Your task to perform on an android device: See recent photos Image 0: 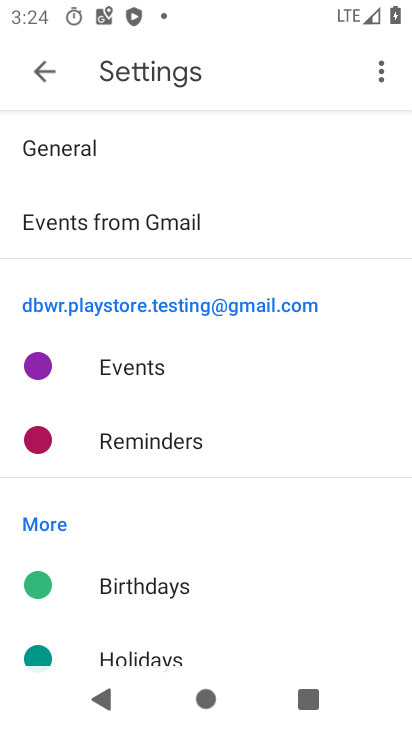
Step 0: press home button
Your task to perform on an android device: See recent photos Image 1: 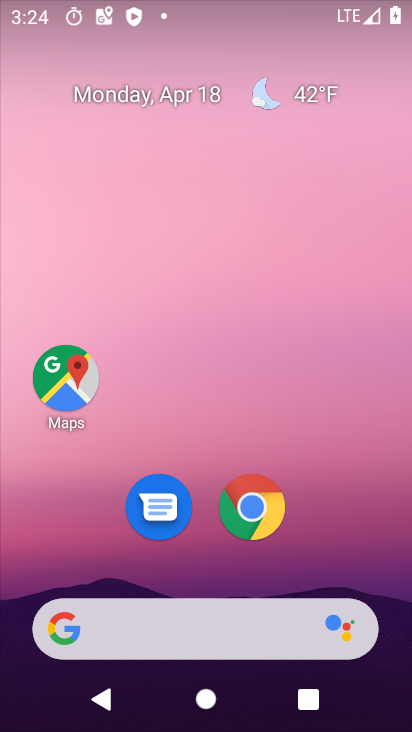
Step 1: drag from (372, 566) to (368, 125)
Your task to perform on an android device: See recent photos Image 2: 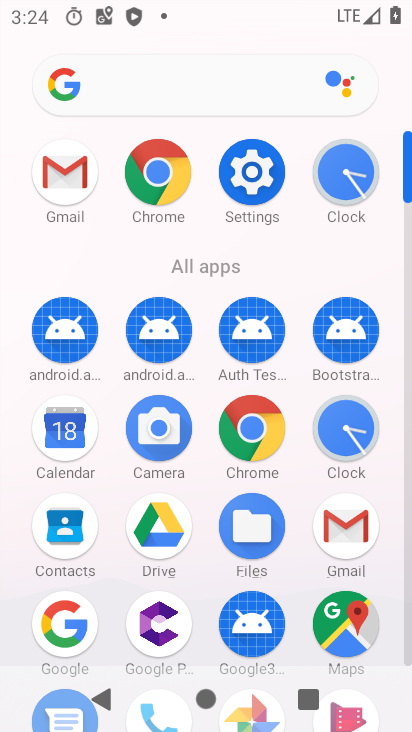
Step 2: drag from (206, 617) to (226, 288)
Your task to perform on an android device: See recent photos Image 3: 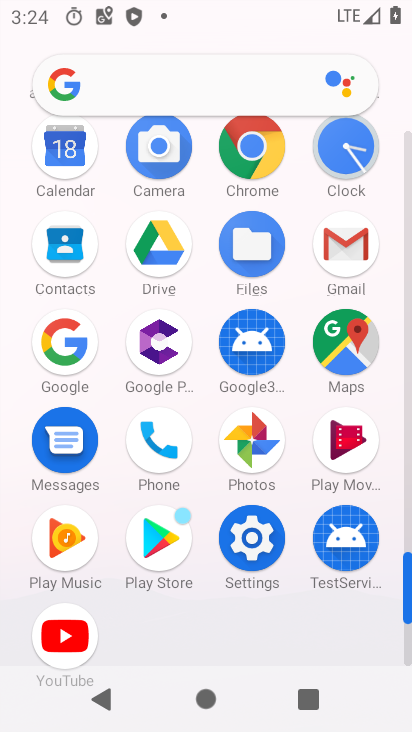
Step 3: click (250, 448)
Your task to perform on an android device: See recent photos Image 4: 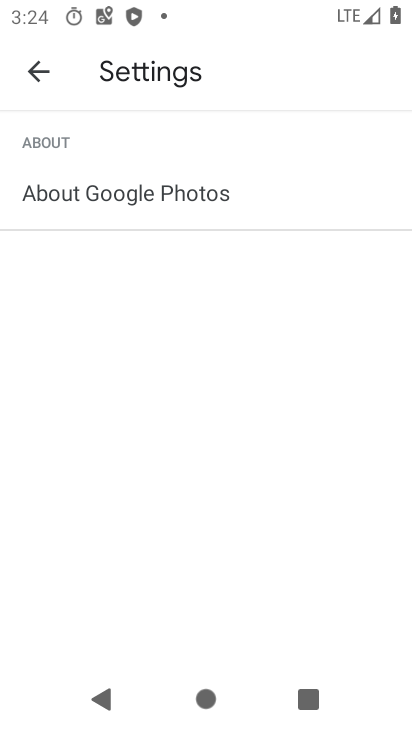
Step 4: click (42, 71)
Your task to perform on an android device: See recent photos Image 5: 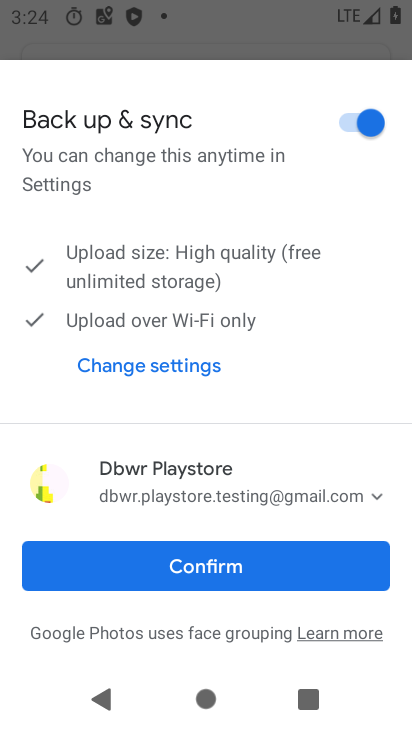
Step 5: click (201, 572)
Your task to perform on an android device: See recent photos Image 6: 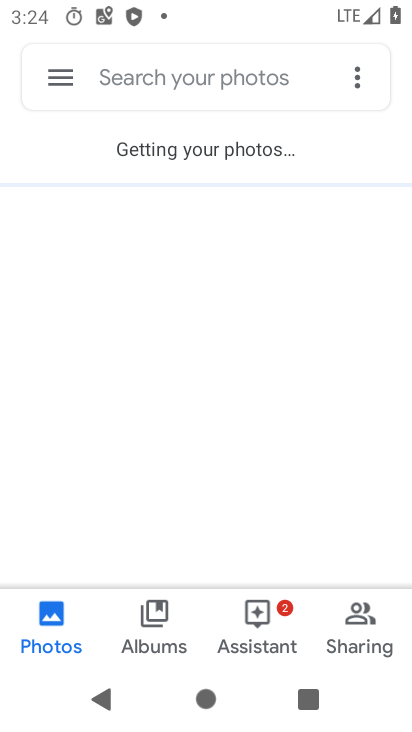
Step 6: click (64, 80)
Your task to perform on an android device: See recent photos Image 7: 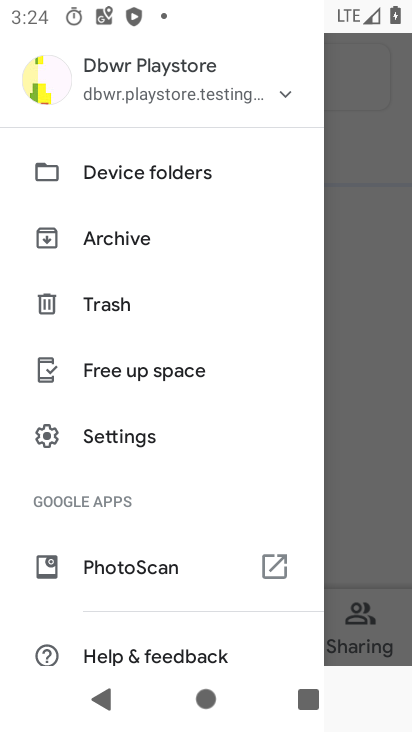
Step 7: click (344, 349)
Your task to perform on an android device: See recent photos Image 8: 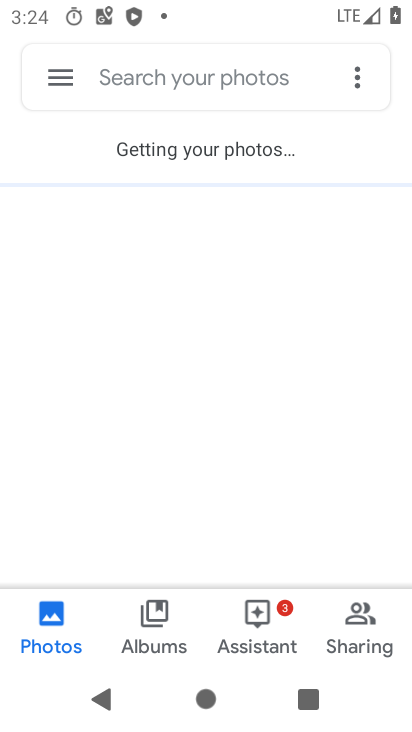
Step 8: click (27, 633)
Your task to perform on an android device: See recent photos Image 9: 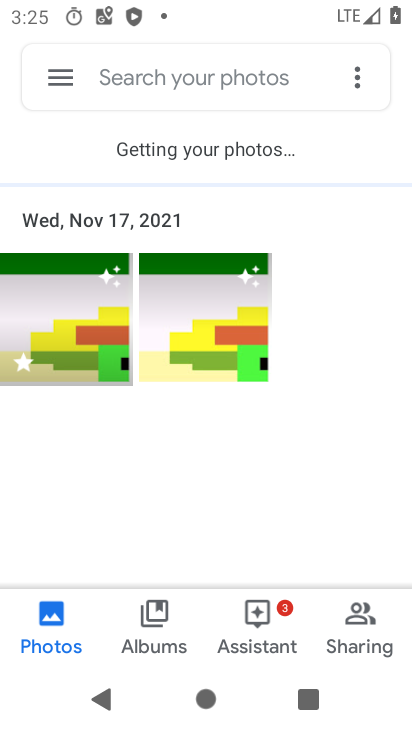
Step 9: task complete